Your task to perform on an android device: Open the calendar app, open the side menu, and click the "Day" option Image 0: 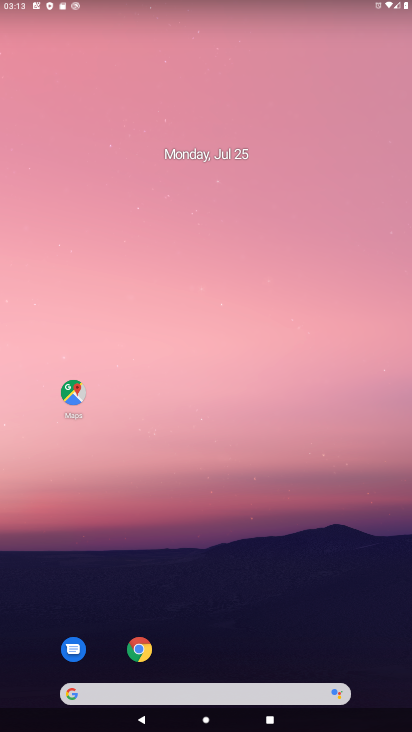
Step 0: drag from (378, 654) to (369, 283)
Your task to perform on an android device: Open the calendar app, open the side menu, and click the "Day" option Image 1: 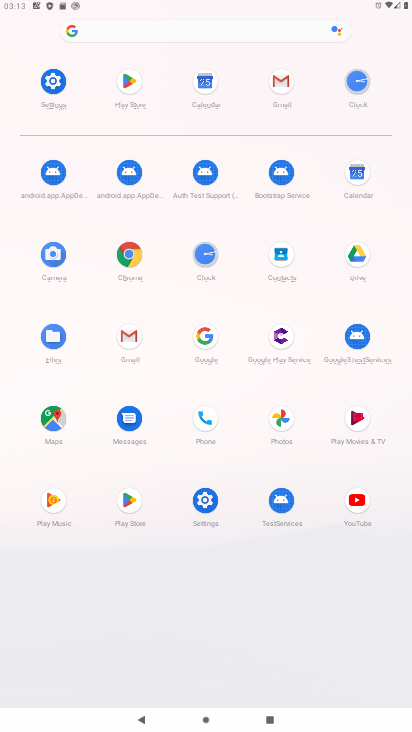
Step 1: click (356, 173)
Your task to perform on an android device: Open the calendar app, open the side menu, and click the "Day" option Image 2: 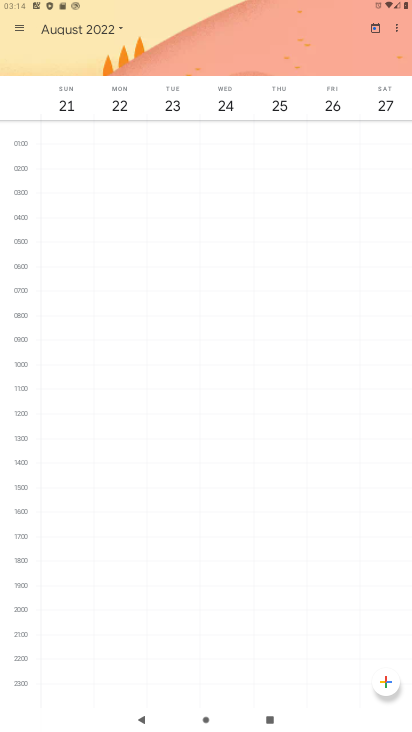
Step 2: click (19, 21)
Your task to perform on an android device: Open the calendar app, open the side menu, and click the "Day" option Image 3: 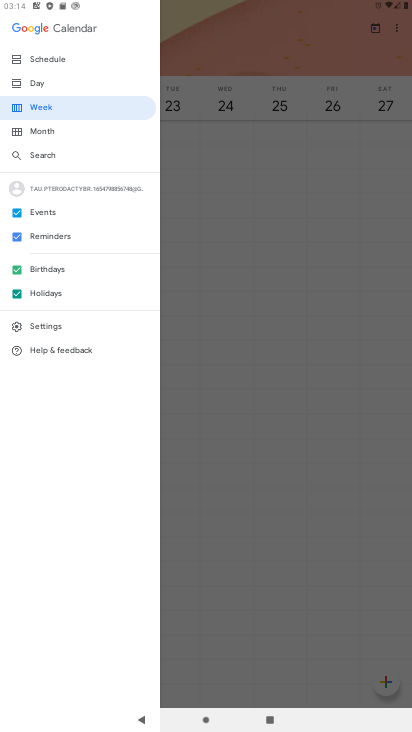
Step 3: click (41, 84)
Your task to perform on an android device: Open the calendar app, open the side menu, and click the "Day" option Image 4: 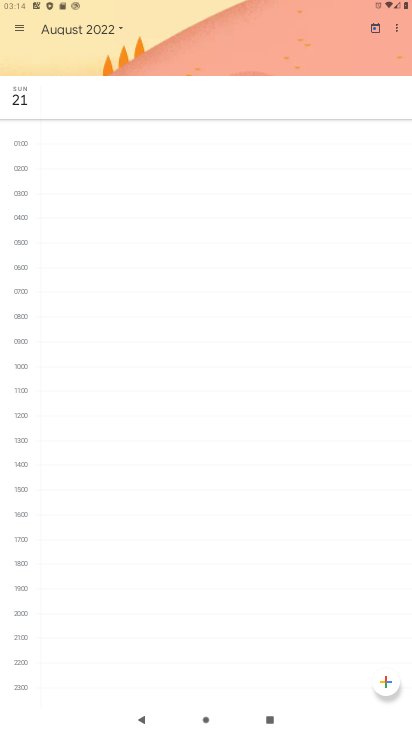
Step 4: task complete